Your task to perform on an android device: Open the phone app and click the voicemail tab. Image 0: 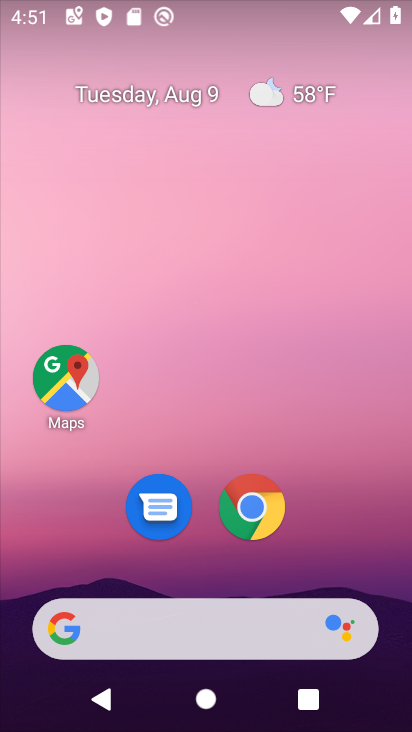
Step 0: drag from (206, 565) to (200, 132)
Your task to perform on an android device: Open the phone app and click the voicemail tab. Image 1: 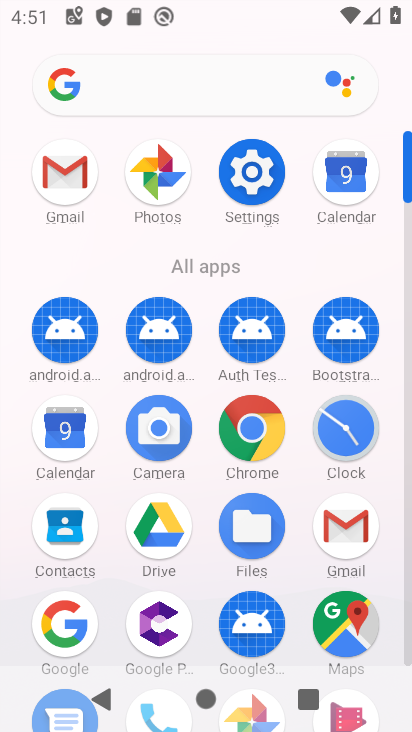
Step 1: drag from (206, 576) to (166, 222)
Your task to perform on an android device: Open the phone app and click the voicemail tab. Image 2: 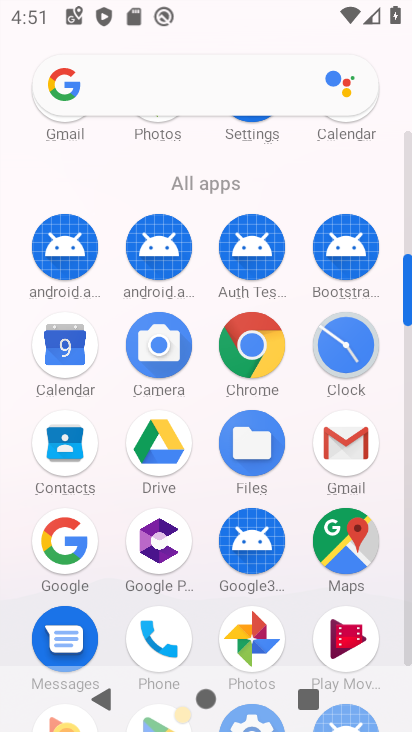
Step 2: click (149, 627)
Your task to perform on an android device: Open the phone app and click the voicemail tab. Image 3: 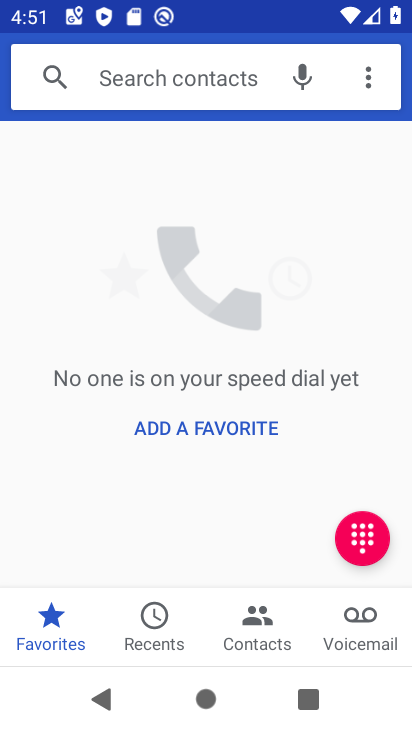
Step 3: click (352, 623)
Your task to perform on an android device: Open the phone app and click the voicemail tab. Image 4: 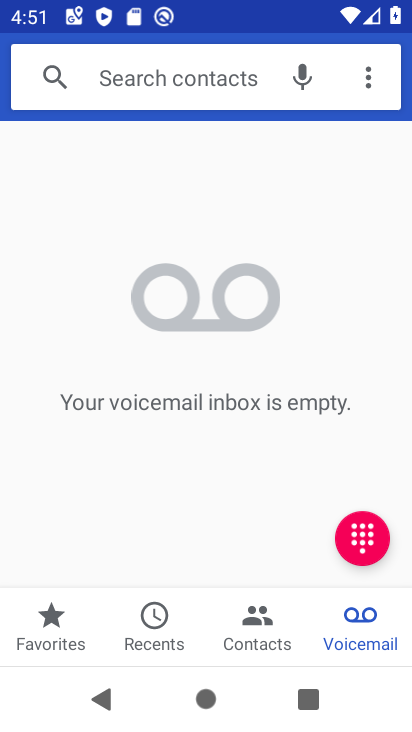
Step 4: task complete